Your task to perform on an android device: Open ESPN.com Image 0: 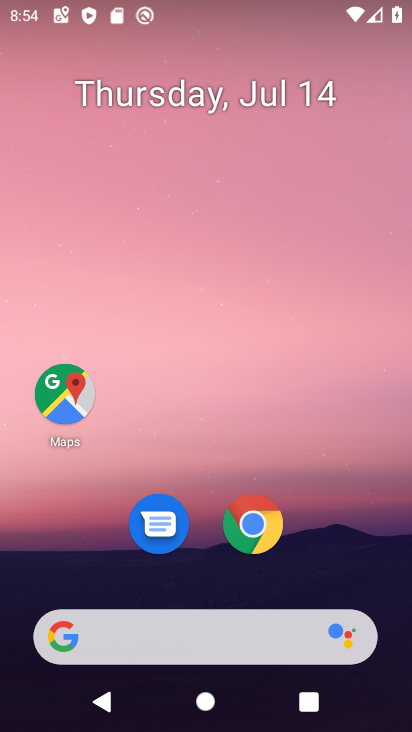
Step 0: click (255, 648)
Your task to perform on an android device: Open ESPN.com Image 1: 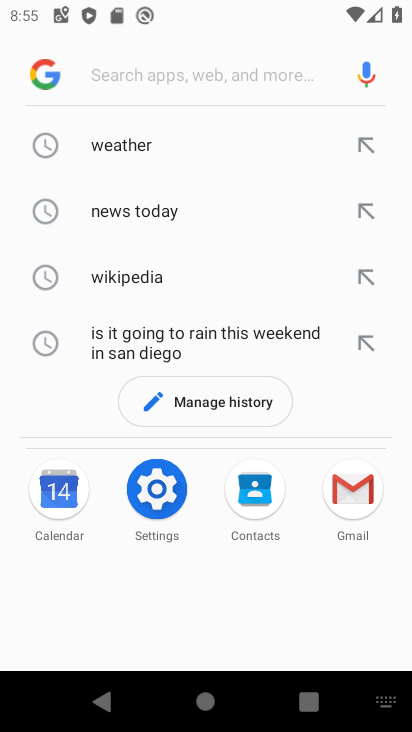
Step 1: type "espn.com"
Your task to perform on an android device: Open ESPN.com Image 2: 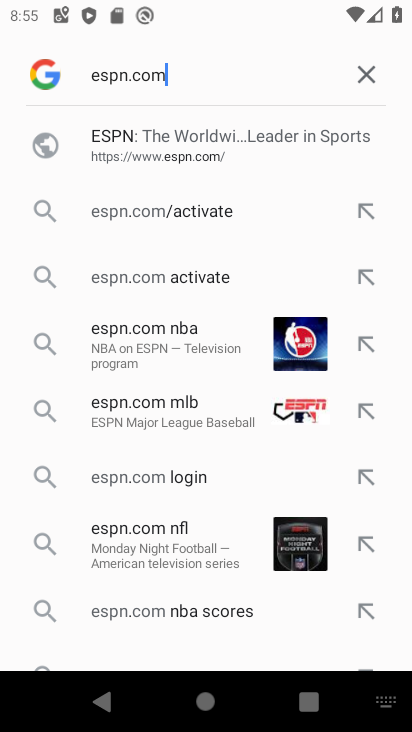
Step 2: click (172, 146)
Your task to perform on an android device: Open ESPN.com Image 3: 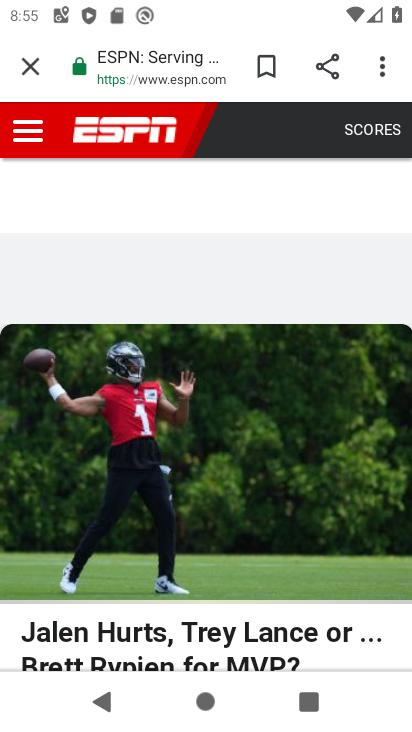
Step 3: task complete